Your task to perform on an android device: Open Google Chrome and click the shortcut for Amazon.com Image 0: 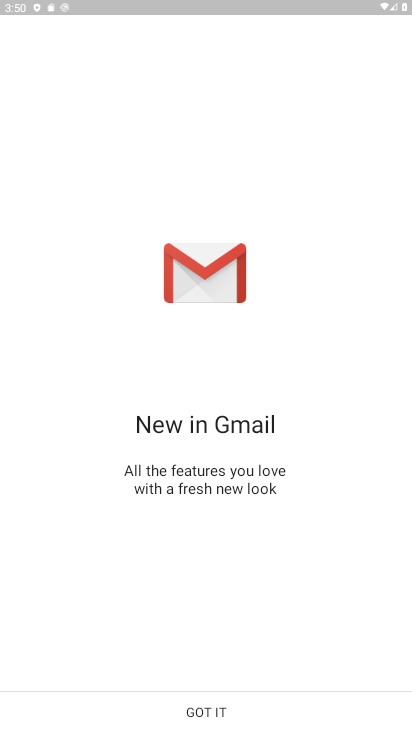
Step 0: click (210, 718)
Your task to perform on an android device: Open Google Chrome and click the shortcut for Amazon.com Image 1: 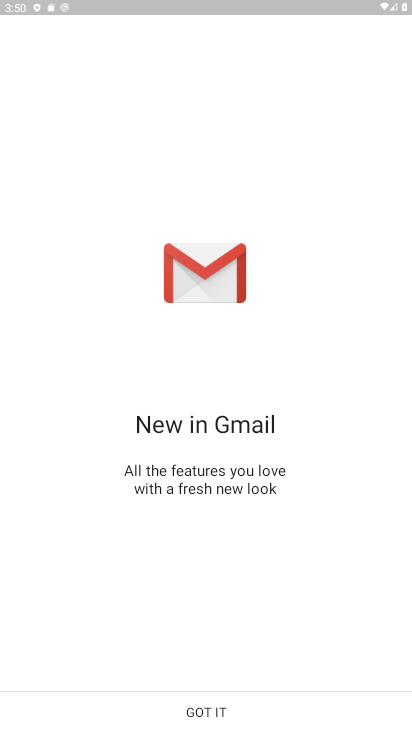
Step 1: click (210, 718)
Your task to perform on an android device: Open Google Chrome and click the shortcut for Amazon.com Image 2: 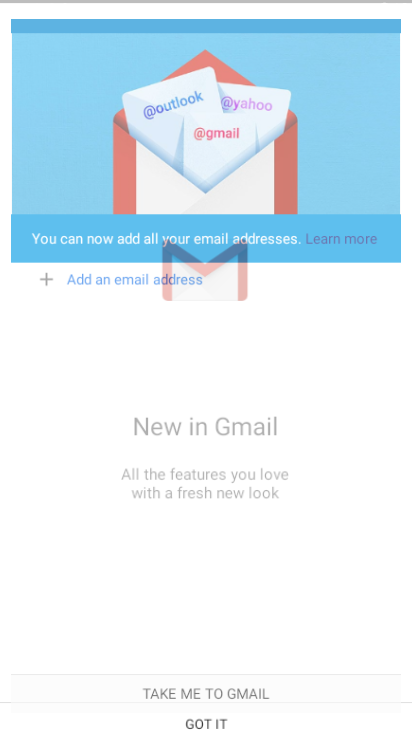
Step 2: click (210, 718)
Your task to perform on an android device: Open Google Chrome and click the shortcut for Amazon.com Image 3: 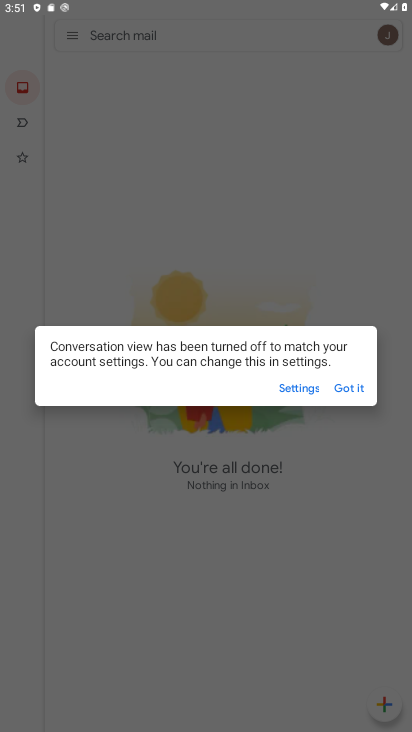
Step 3: click (361, 385)
Your task to perform on an android device: Open Google Chrome and click the shortcut for Amazon.com Image 4: 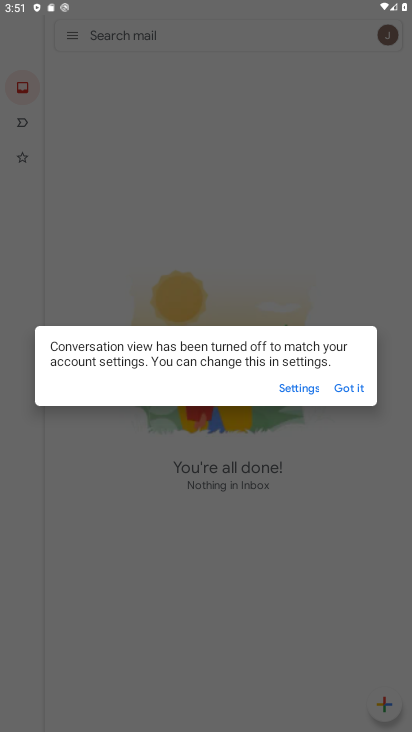
Step 4: click (359, 386)
Your task to perform on an android device: Open Google Chrome and click the shortcut for Amazon.com Image 5: 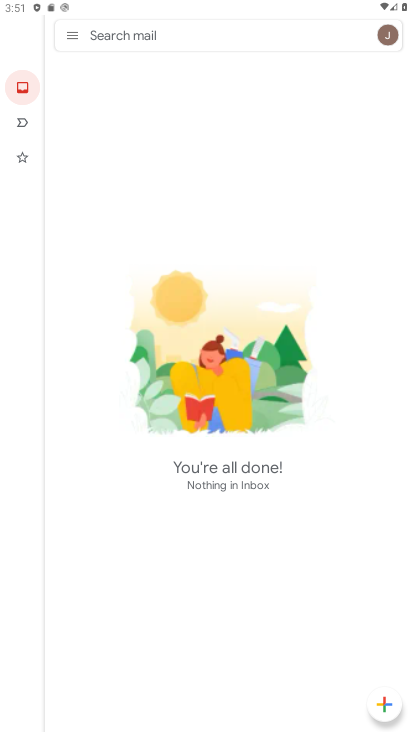
Step 5: click (358, 386)
Your task to perform on an android device: Open Google Chrome and click the shortcut for Amazon.com Image 6: 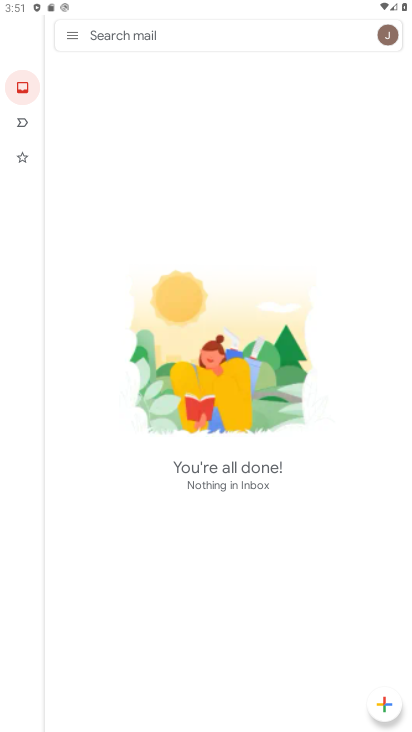
Step 6: press back button
Your task to perform on an android device: Open Google Chrome and click the shortcut for Amazon.com Image 7: 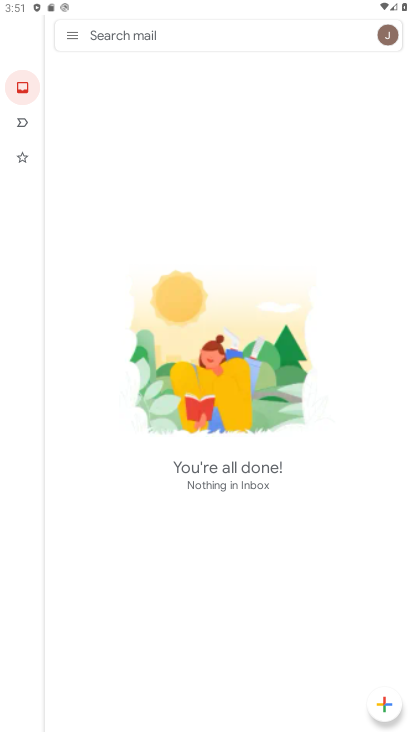
Step 7: press back button
Your task to perform on an android device: Open Google Chrome and click the shortcut for Amazon.com Image 8: 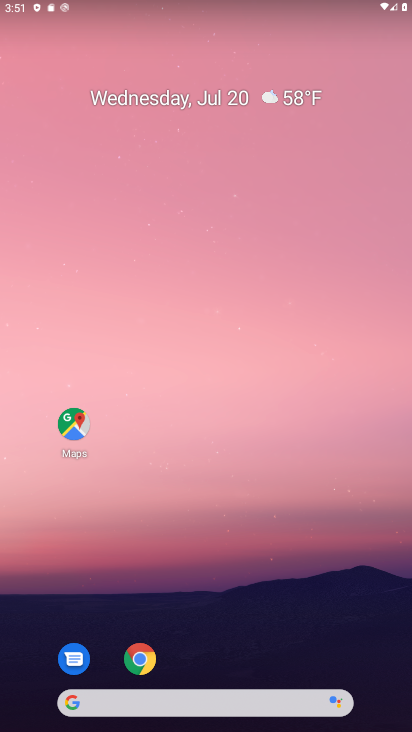
Step 8: drag from (215, 616) to (200, 208)
Your task to perform on an android device: Open Google Chrome and click the shortcut for Amazon.com Image 9: 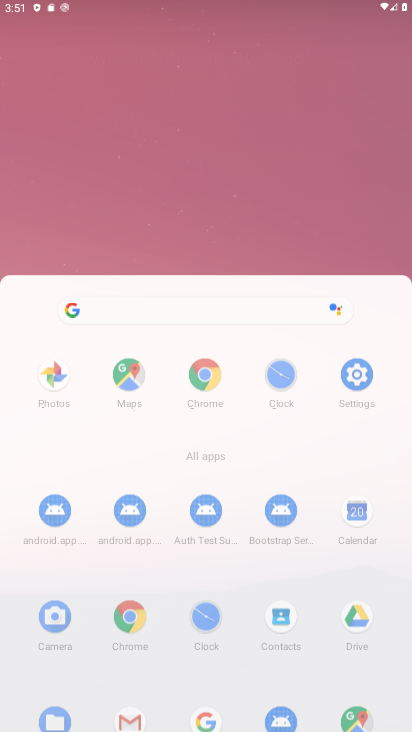
Step 9: drag from (243, 459) to (243, 81)
Your task to perform on an android device: Open Google Chrome and click the shortcut for Amazon.com Image 10: 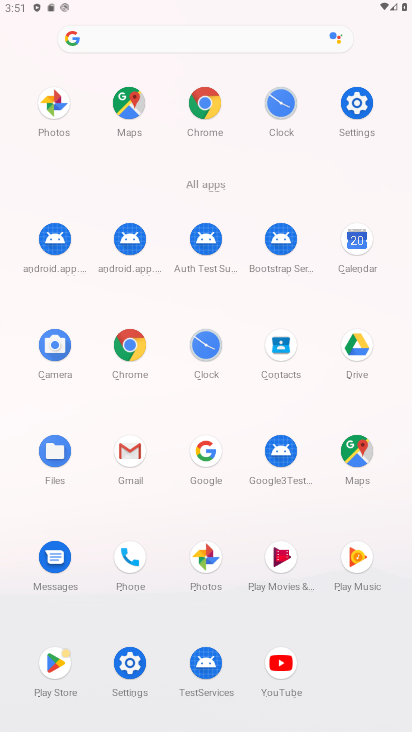
Step 10: click (203, 105)
Your task to perform on an android device: Open Google Chrome and click the shortcut for Amazon.com Image 11: 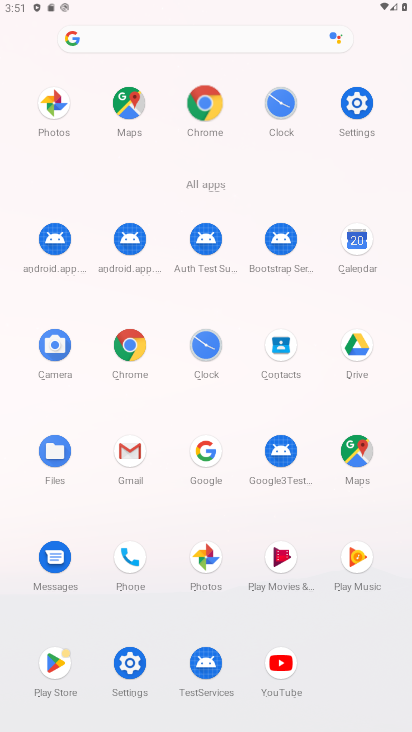
Step 11: click (199, 109)
Your task to perform on an android device: Open Google Chrome and click the shortcut for Amazon.com Image 12: 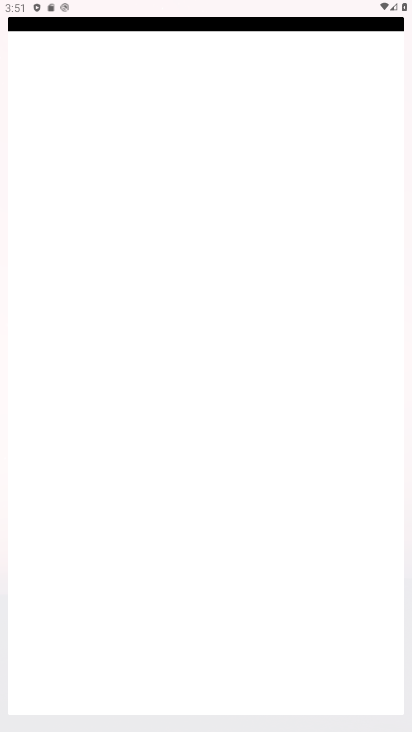
Step 12: click (198, 108)
Your task to perform on an android device: Open Google Chrome and click the shortcut for Amazon.com Image 13: 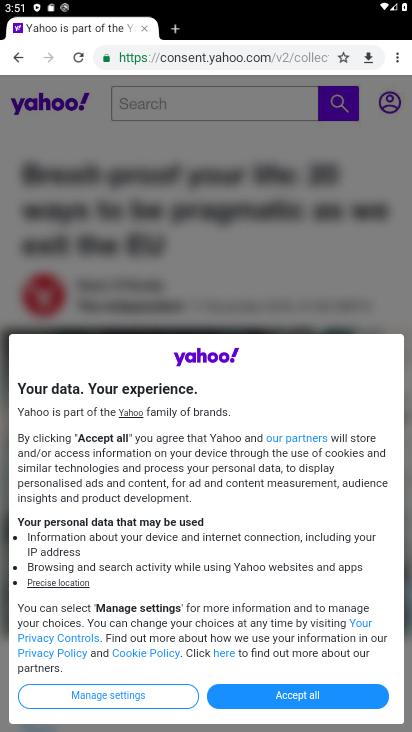
Step 13: drag from (394, 56) to (273, 64)
Your task to perform on an android device: Open Google Chrome and click the shortcut for Amazon.com Image 14: 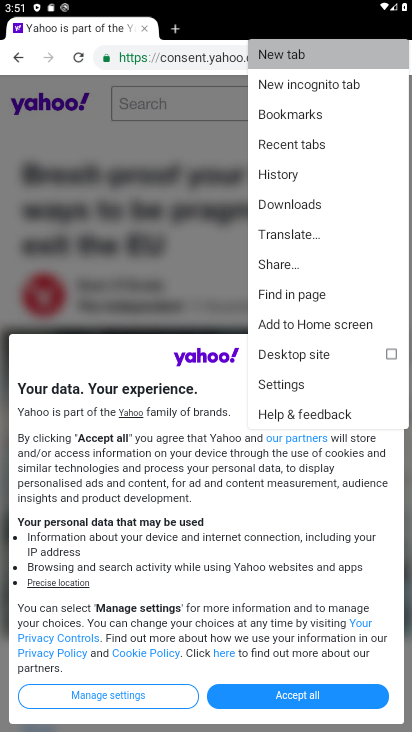
Step 14: click (274, 65)
Your task to perform on an android device: Open Google Chrome and click the shortcut for Amazon.com Image 15: 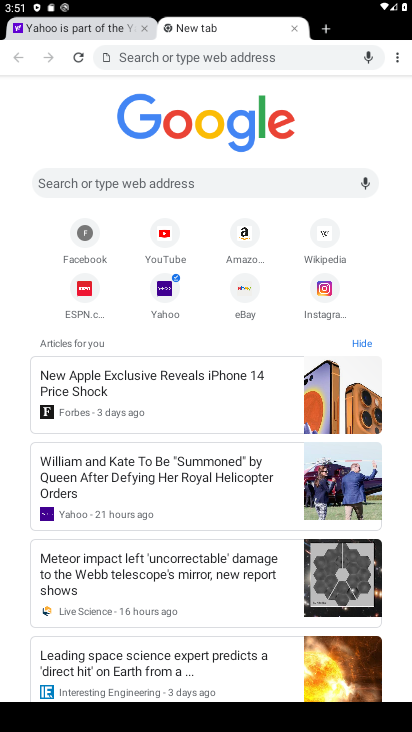
Step 15: click (248, 225)
Your task to perform on an android device: Open Google Chrome and click the shortcut for Amazon.com Image 16: 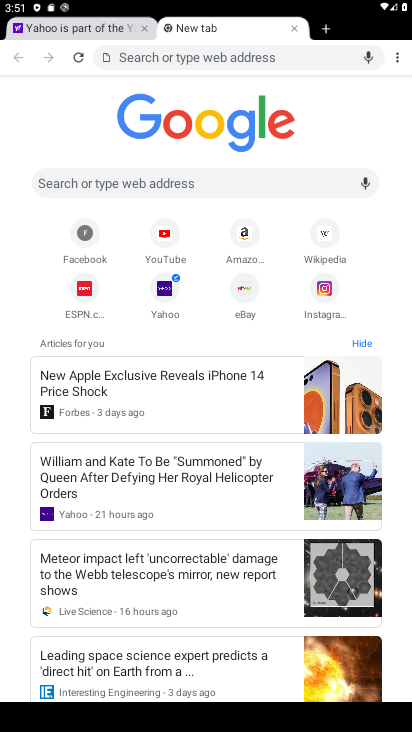
Step 16: click (234, 235)
Your task to perform on an android device: Open Google Chrome and click the shortcut for Amazon.com Image 17: 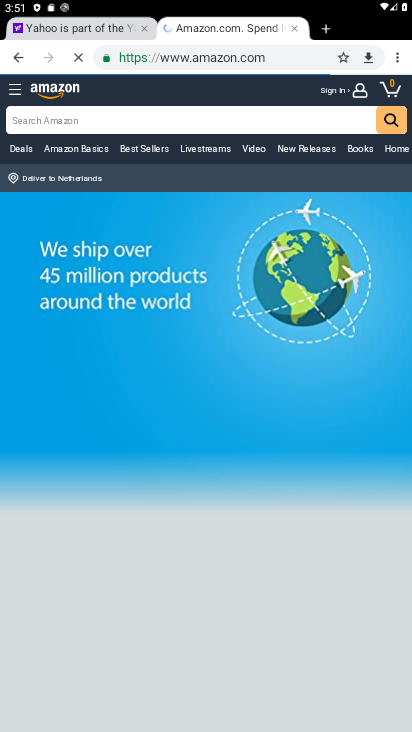
Step 17: task complete